Your task to perform on an android device: Open the Play Movies app and select the watchlist tab. Image 0: 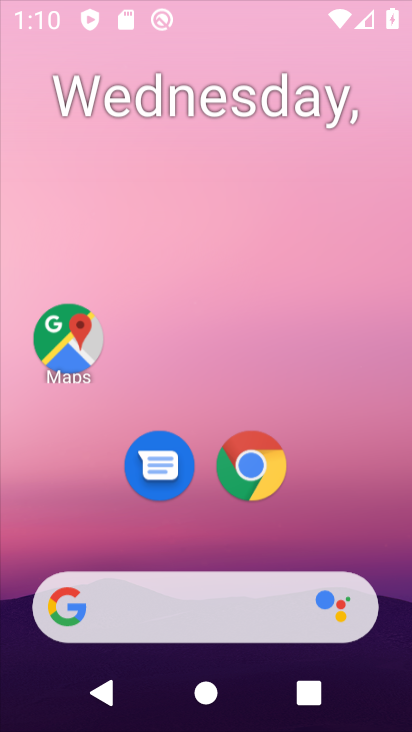
Step 0: press home button
Your task to perform on an android device: Open the Play Movies app and select the watchlist tab. Image 1: 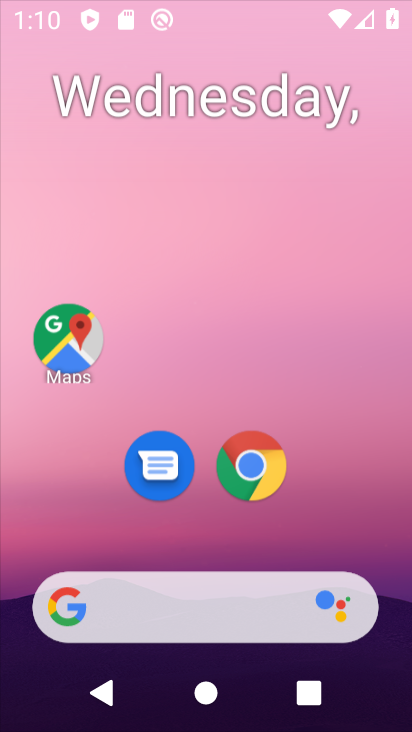
Step 1: click (203, 299)
Your task to perform on an android device: Open the Play Movies app and select the watchlist tab. Image 2: 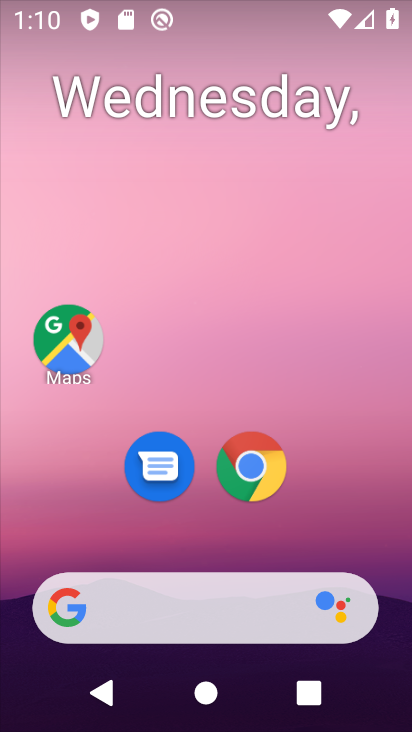
Step 2: drag from (383, 523) to (396, 125)
Your task to perform on an android device: Open the Play Movies app and select the watchlist tab. Image 3: 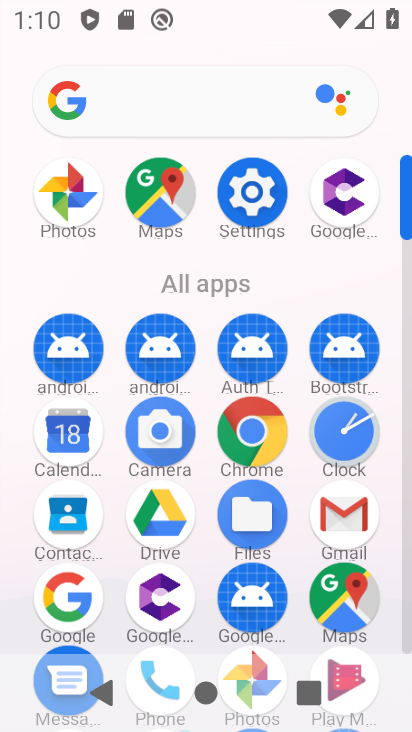
Step 3: click (404, 645)
Your task to perform on an android device: Open the Play Movies app and select the watchlist tab. Image 4: 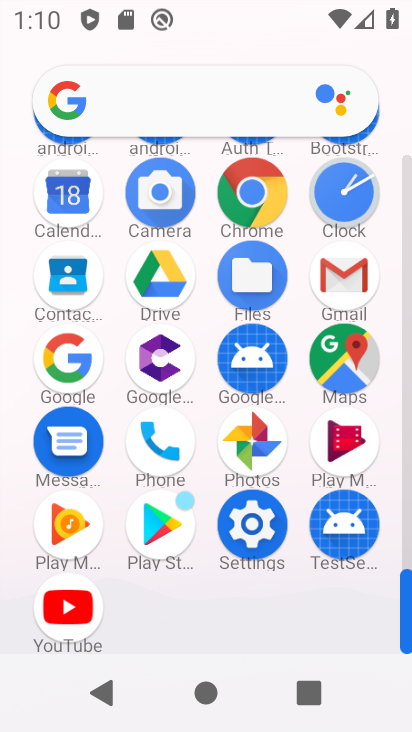
Step 4: click (173, 432)
Your task to perform on an android device: Open the Play Movies app and select the watchlist tab. Image 5: 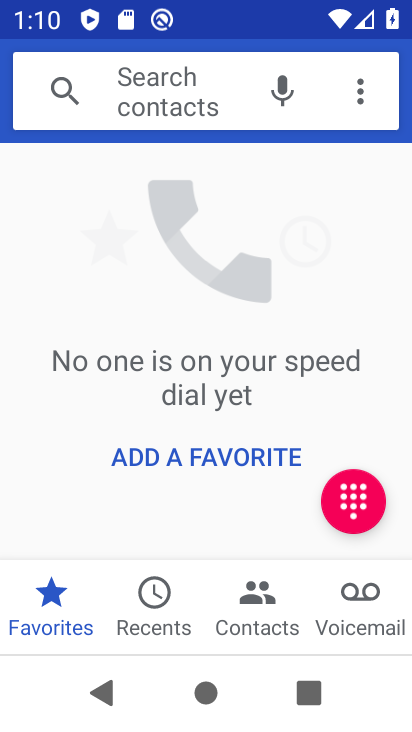
Step 5: click (167, 102)
Your task to perform on an android device: Open the Play Movies app and select the watchlist tab. Image 6: 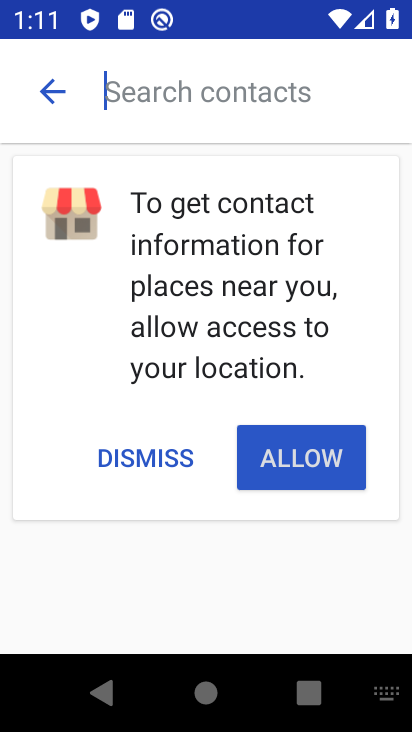
Step 6: click (58, 82)
Your task to perform on an android device: Open the Play Movies app and select the watchlist tab. Image 7: 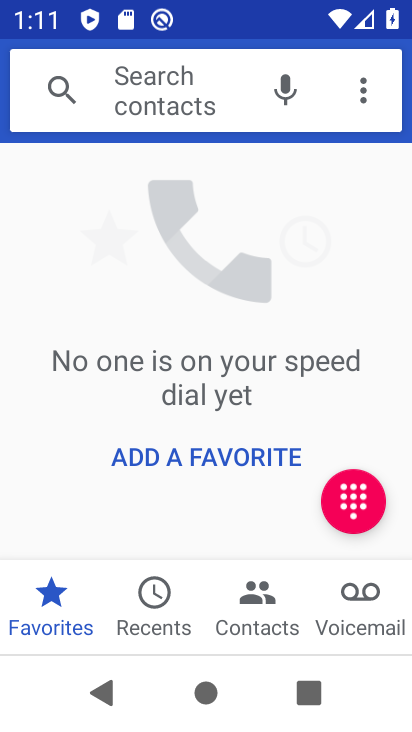
Step 7: click (328, 610)
Your task to perform on an android device: Open the Play Movies app and select the watchlist tab. Image 8: 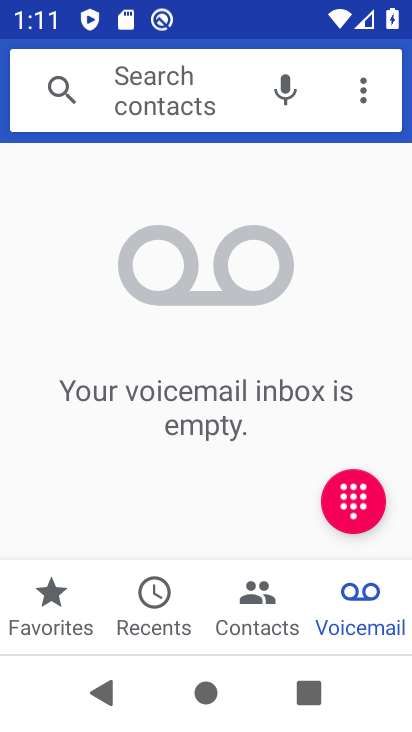
Step 8: task complete